Your task to perform on an android device: open app "Yahoo Mail" (install if not already installed) and go to login screen Image 0: 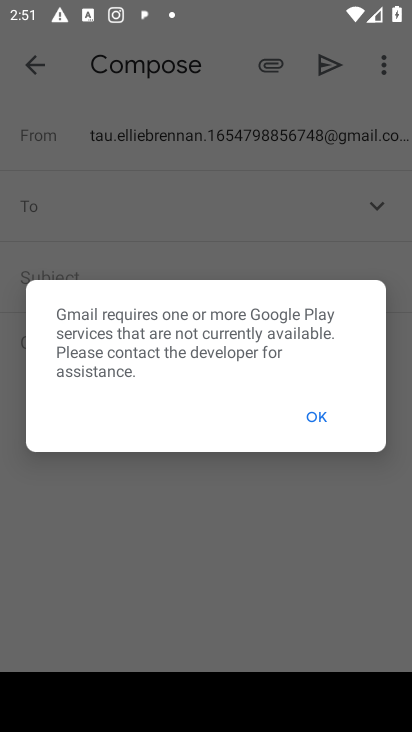
Step 0: press home button
Your task to perform on an android device: open app "Yahoo Mail" (install if not already installed) and go to login screen Image 1: 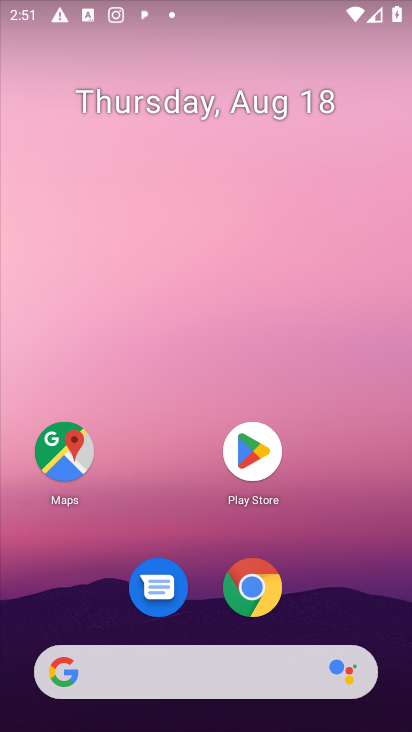
Step 1: click (249, 442)
Your task to perform on an android device: open app "Yahoo Mail" (install if not already installed) and go to login screen Image 2: 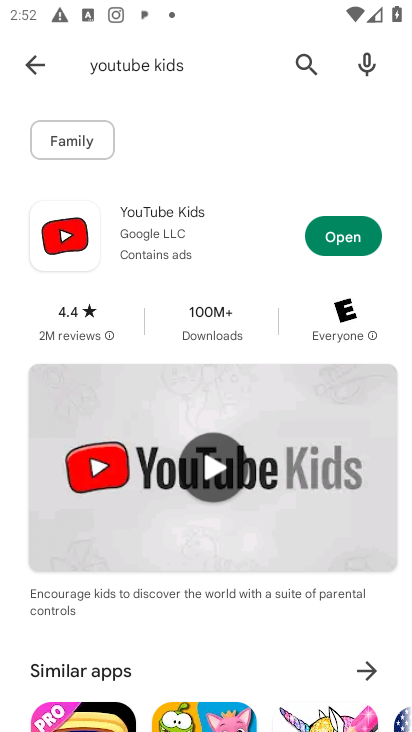
Step 2: click (304, 57)
Your task to perform on an android device: open app "Yahoo Mail" (install if not already installed) and go to login screen Image 3: 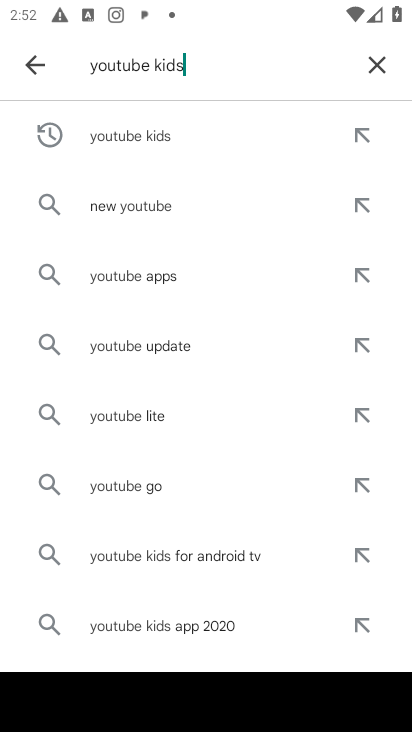
Step 3: click (368, 58)
Your task to perform on an android device: open app "Yahoo Mail" (install if not already installed) and go to login screen Image 4: 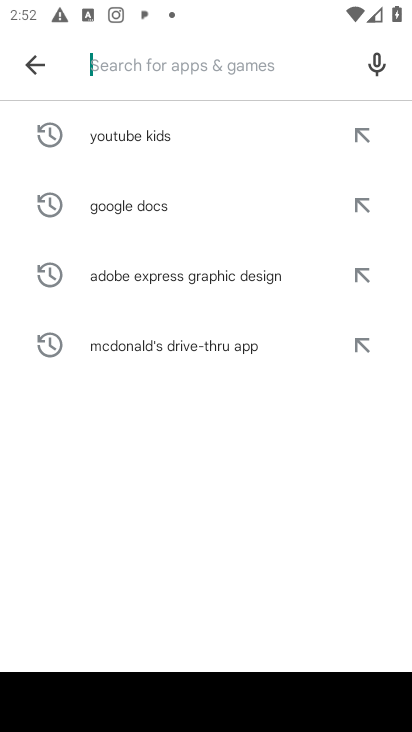
Step 4: type "Yahoo Mail"
Your task to perform on an android device: open app "Yahoo Mail" (install if not already installed) and go to login screen Image 5: 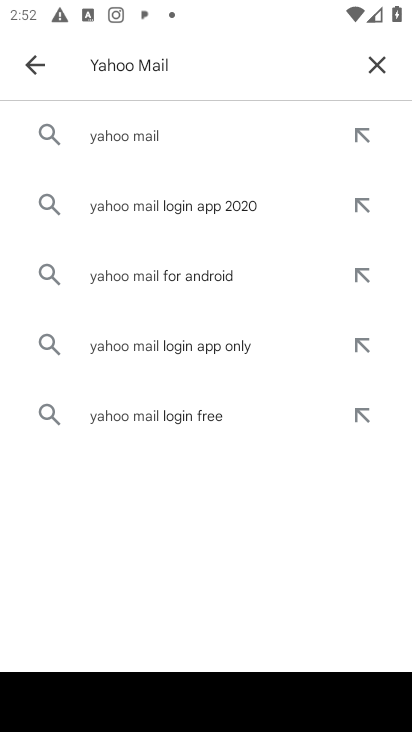
Step 5: click (135, 140)
Your task to perform on an android device: open app "Yahoo Mail" (install if not already installed) and go to login screen Image 6: 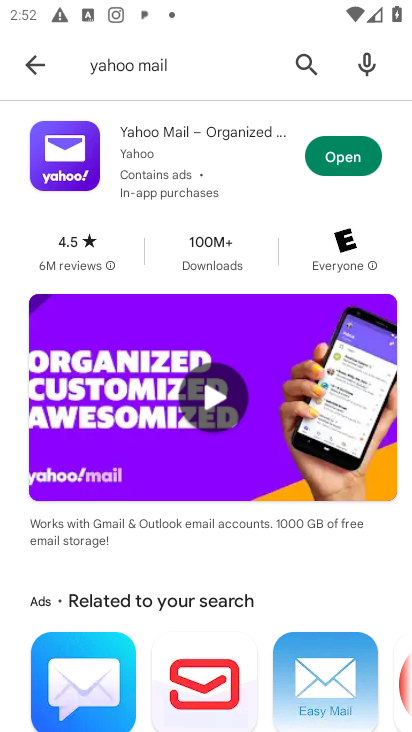
Step 6: click (345, 165)
Your task to perform on an android device: open app "Yahoo Mail" (install if not already installed) and go to login screen Image 7: 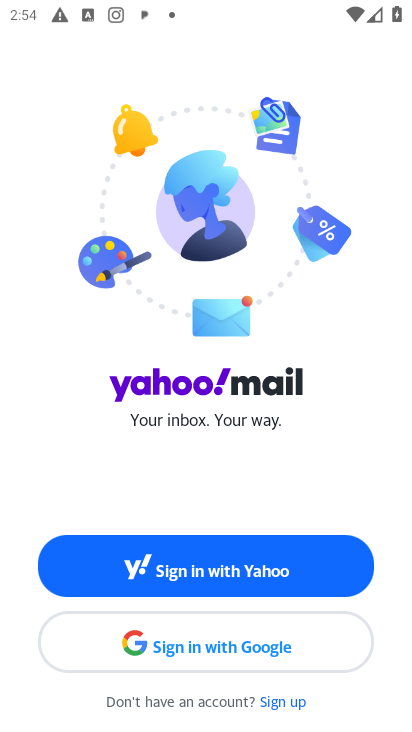
Step 7: task complete